Your task to perform on an android device: turn pop-ups on in chrome Image 0: 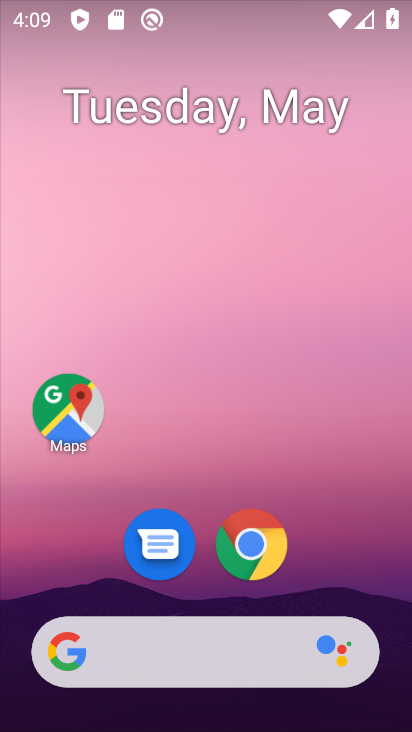
Step 0: click (196, 341)
Your task to perform on an android device: turn pop-ups on in chrome Image 1: 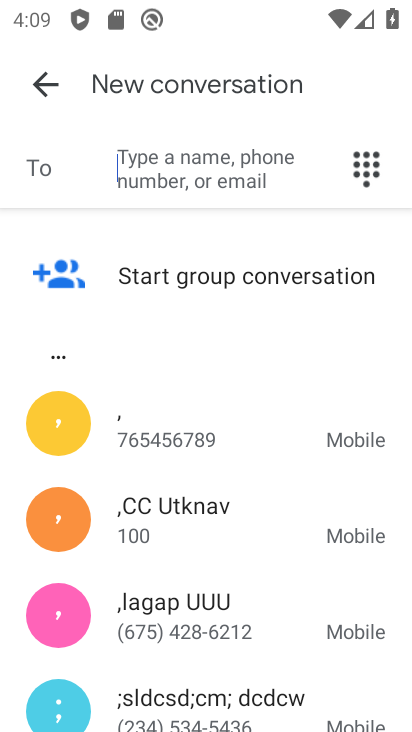
Step 1: press home button
Your task to perform on an android device: turn pop-ups on in chrome Image 2: 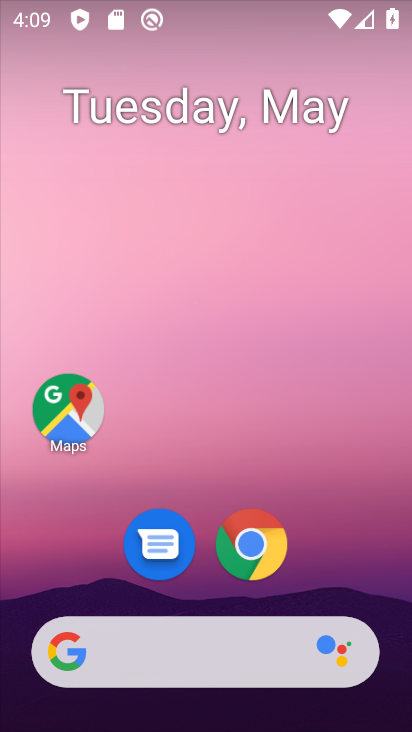
Step 2: click (248, 545)
Your task to perform on an android device: turn pop-ups on in chrome Image 3: 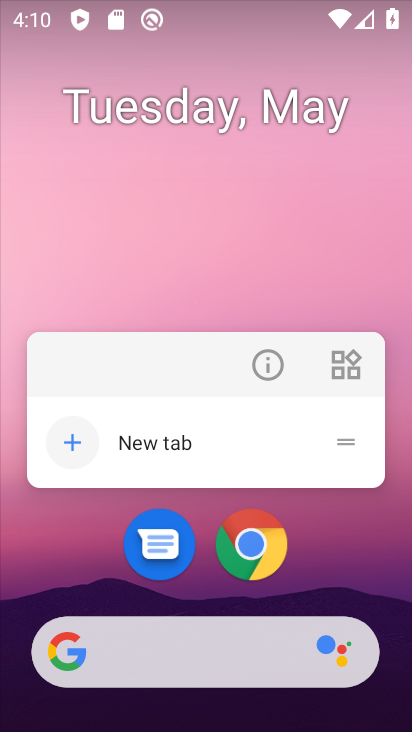
Step 3: click (260, 552)
Your task to perform on an android device: turn pop-ups on in chrome Image 4: 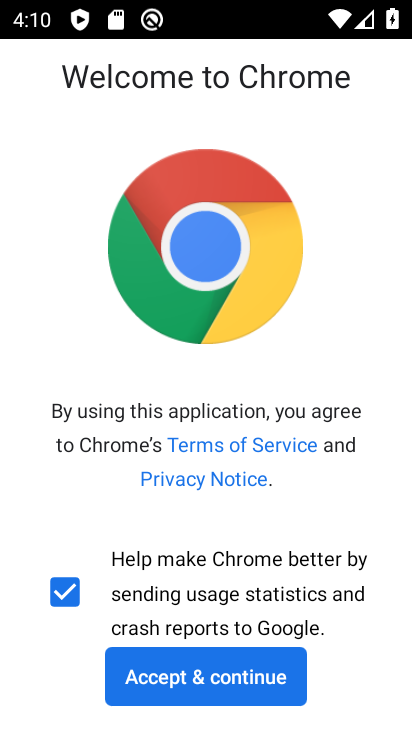
Step 4: click (205, 668)
Your task to perform on an android device: turn pop-ups on in chrome Image 5: 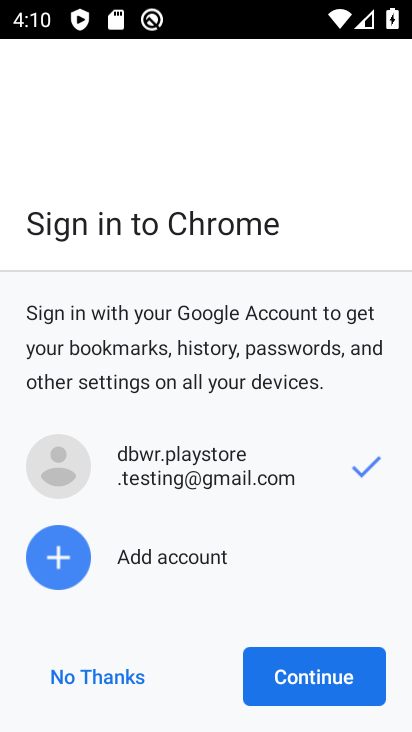
Step 5: click (263, 687)
Your task to perform on an android device: turn pop-ups on in chrome Image 6: 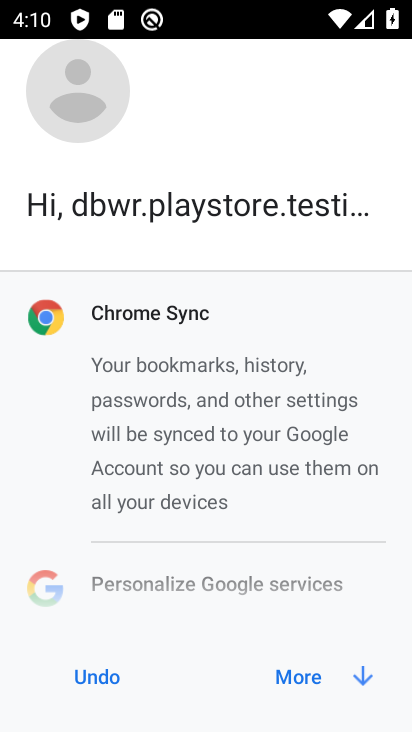
Step 6: click (296, 685)
Your task to perform on an android device: turn pop-ups on in chrome Image 7: 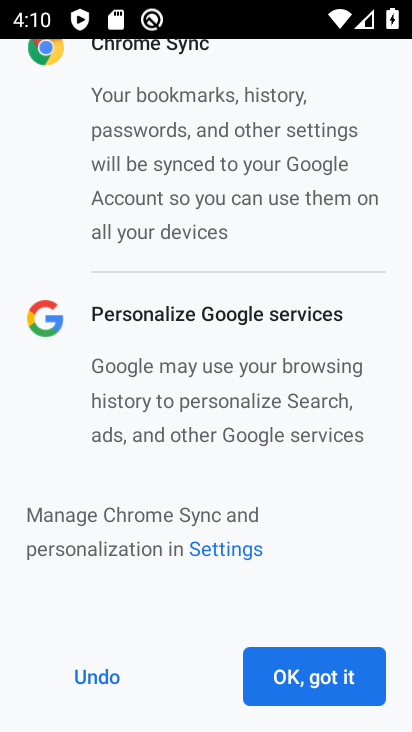
Step 7: click (296, 685)
Your task to perform on an android device: turn pop-ups on in chrome Image 8: 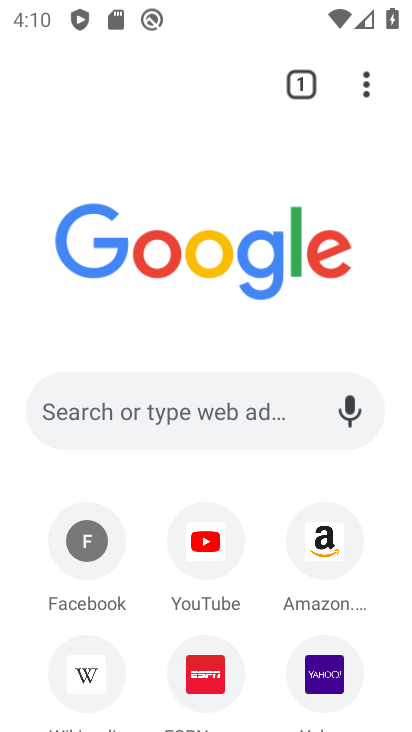
Step 8: click (362, 73)
Your task to perform on an android device: turn pop-ups on in chrome Image 9: 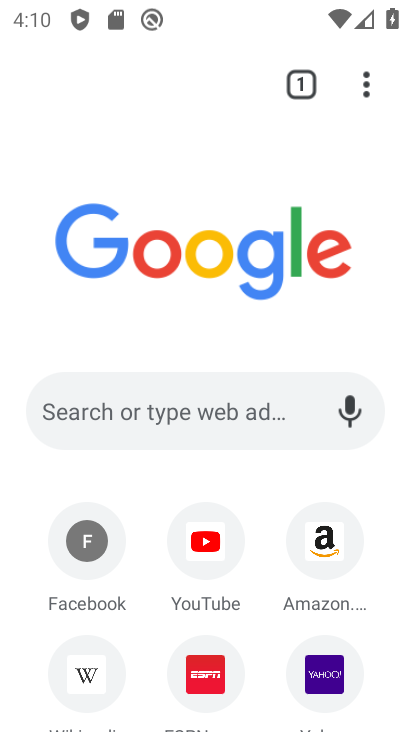
Step 9: click (364, 91)
Your task to perform on an android device: turn pop-ups on in chrome Image 10: 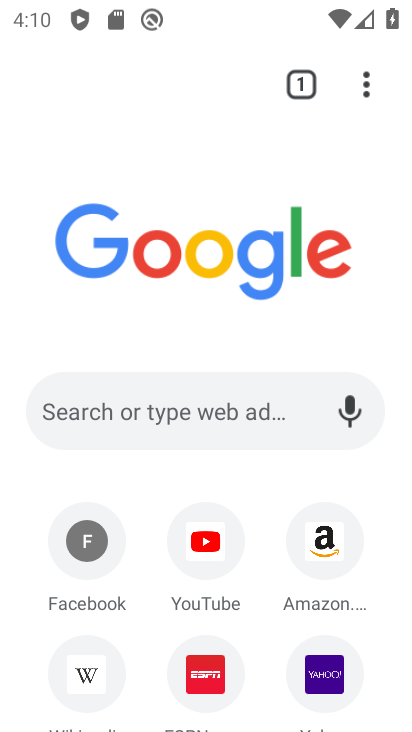
Step 10: click (360, 86)
Your task to perform on an android device: turn pop-ups on in chrome Image 11: 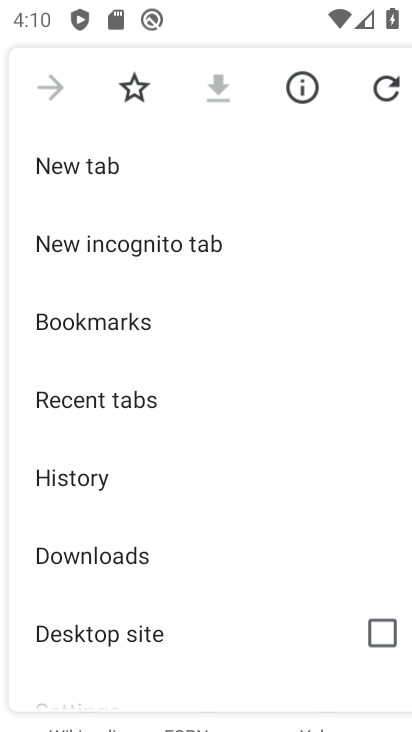
Step 11: drag from (133, 640) to (136, 164)
Your task to perform on an android device: turn pop-ups on in chrome Image 12: 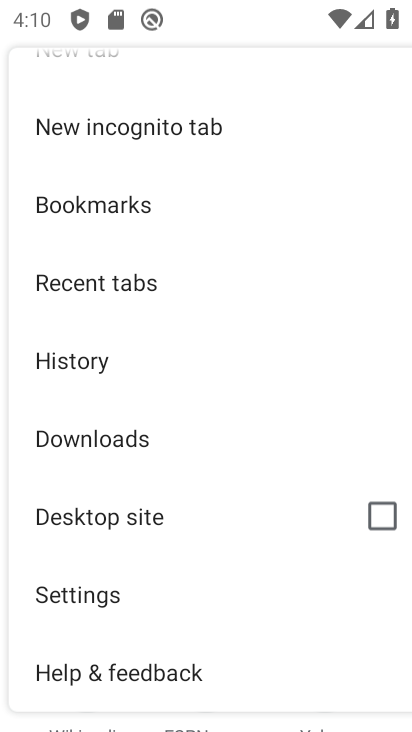
Step 12: click (39, 589)
Your task to perform on an android device: turn pop-ups on in chrome Image 13: 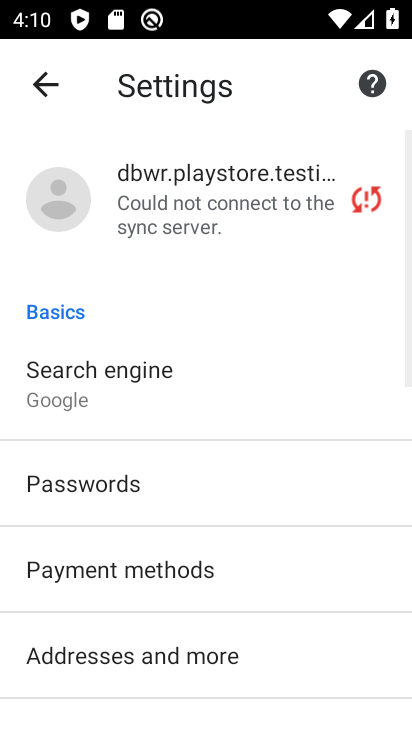
Step 13: drag from (68, 598) to (86, 329)
Your task to perform on an android device: turn pop-ups on in chrome Image 14: 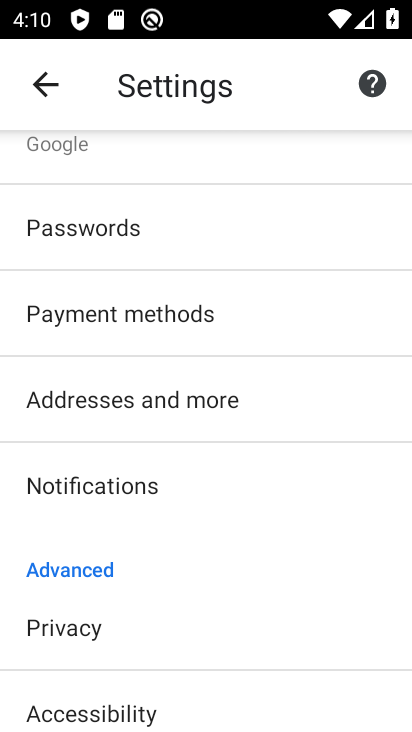
Step 14: drag from (100, 692) to (117, 407)
Your task to perform on an android device: turn pop-ups on in chrome Image 15: 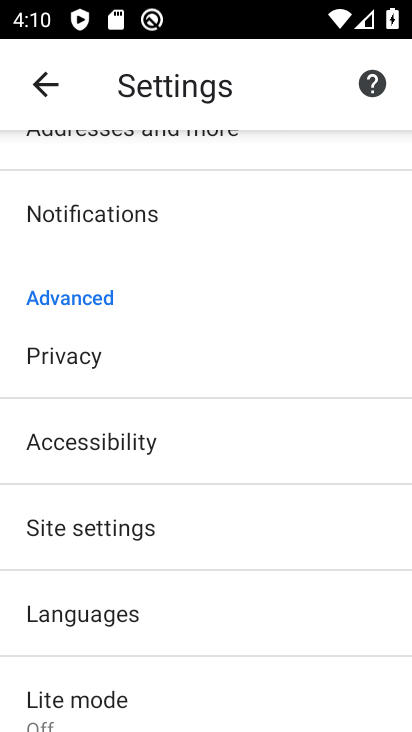
Step 15: click (103, 533)
Your task to perform on an android device: turn pop-ups on in chrome Image 16: 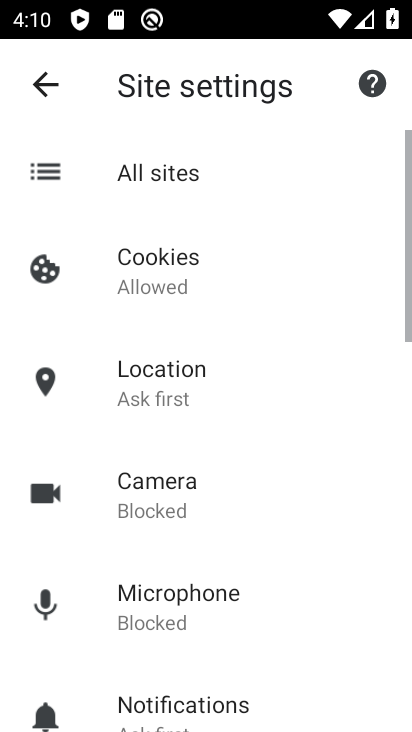
Step 16: drag from (118, 709) to (118, 416)
Your task to perform on an android device: turn pop-ups on in chrome Image 17: 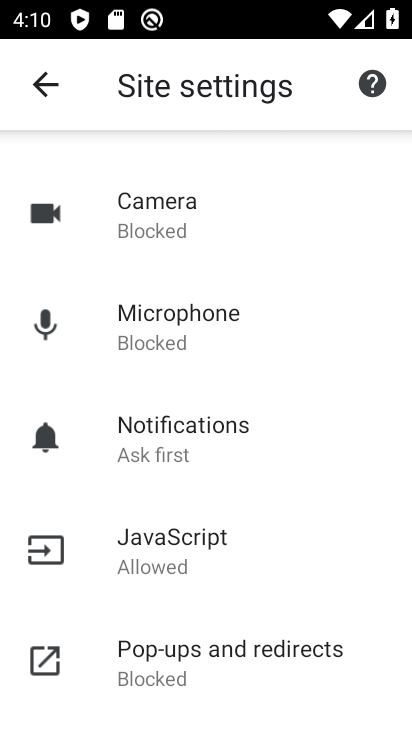
Step 17: click (160, 648)
Your task to perform on an android device: turn pop-ups on in chrome Image 18: 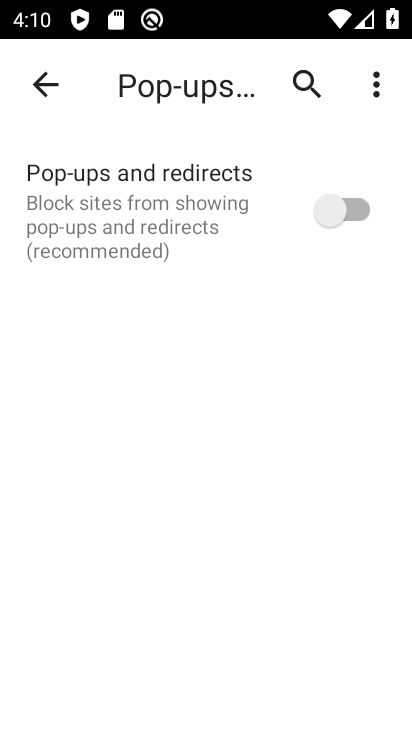
Step 18: click (342, 213)
Your task to perform on an android device: turn pop-ups on in chrome Image 19: 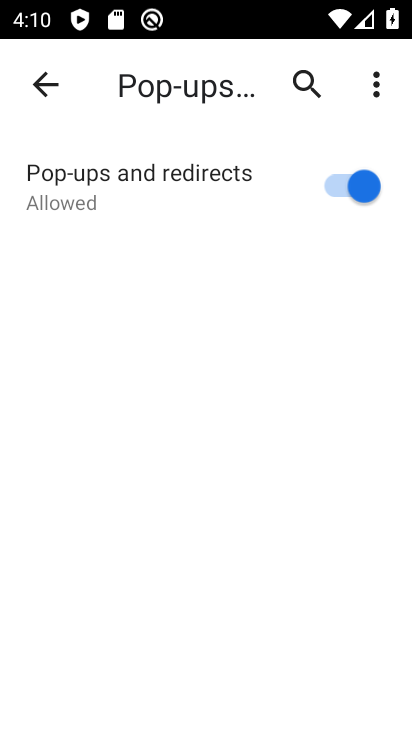
Step 19: task complete